Your task to perform on an android device: Go to eBay Image 0: 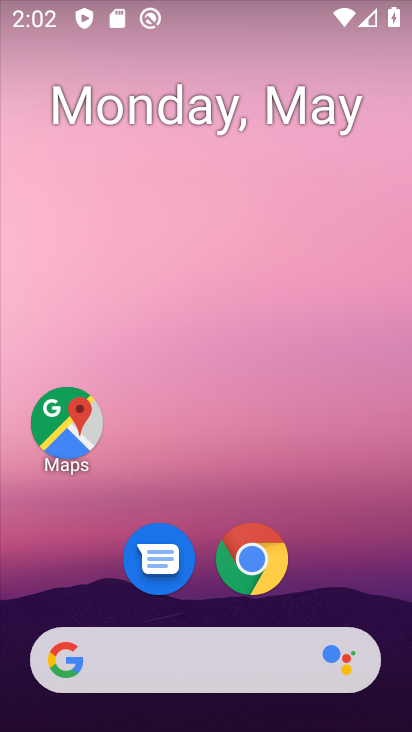
Step 0: drag from (265, 714) to (264, 169)
Your task to perform on an android device: Go to eBay Image 1: 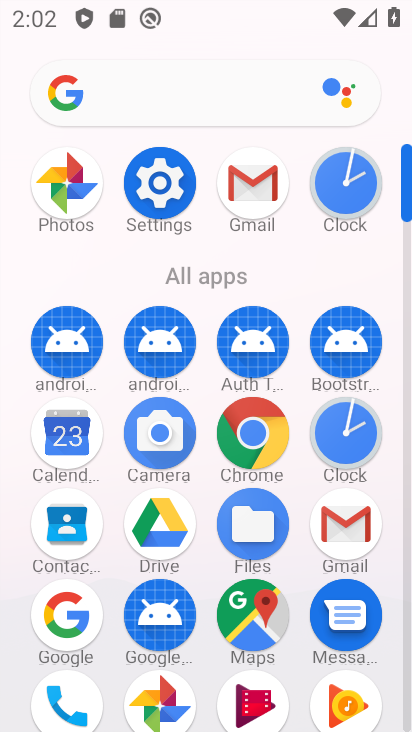
Step 1: click (276, 440)
Your task to perform on an android device: Go to eBay Image 2: 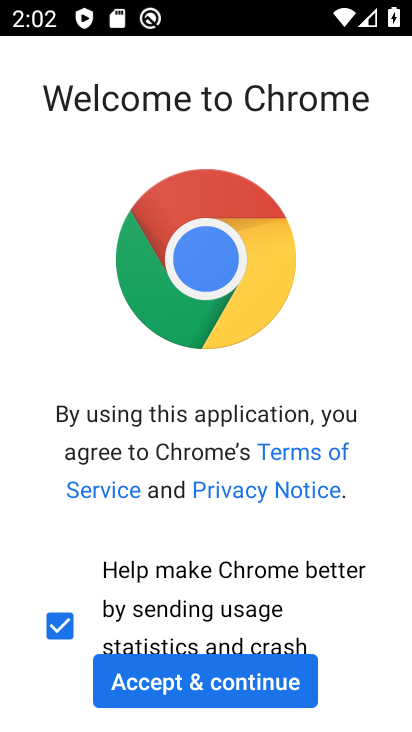
Step 2: click (204, 684)
Your task to perform on an android device: Go to eBay Image 3: 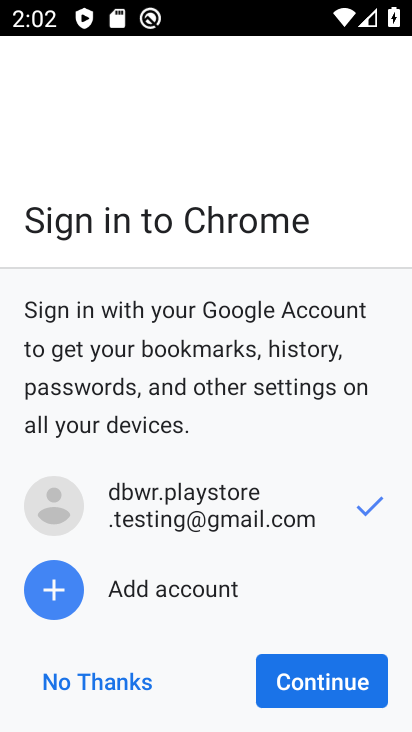
Step 3: click (327, 665)
Your task to perform on an android device: Go to eBay Image 4: 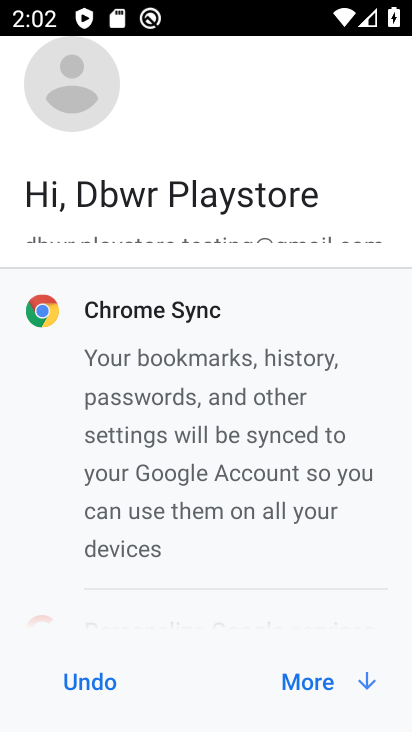
Step 4: click (357, 682)
Your task to perform on an android device: Go to eBay Image 5: 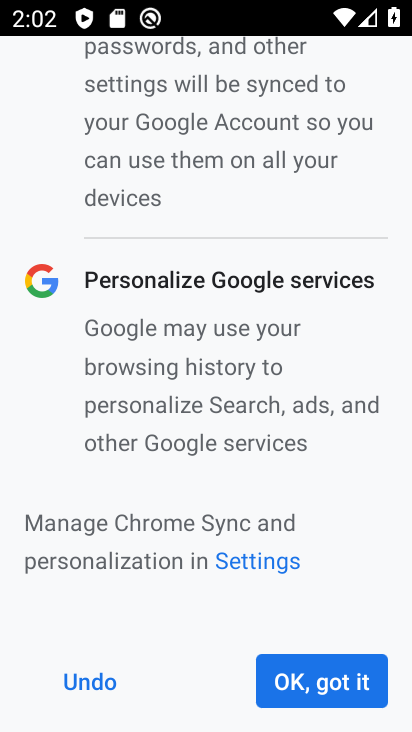
Step 5: click (307, 697)
Your task to perform on an android device: Go to eBay Image 6: 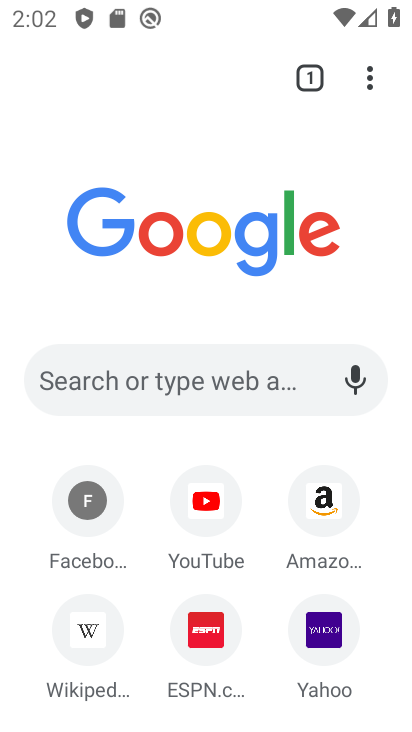
Step 6: click (169, 396)
Your task to perform on an android device: Go to eBay Image 7: 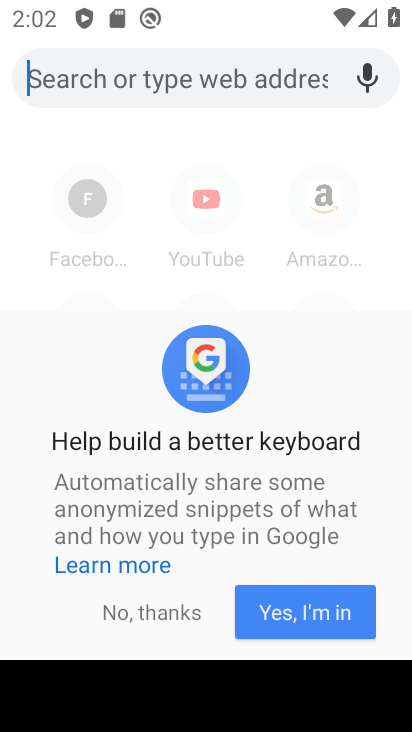
Step 7: click (112, 618)
Your task to perform on an android device: Go to eBay Image 8: 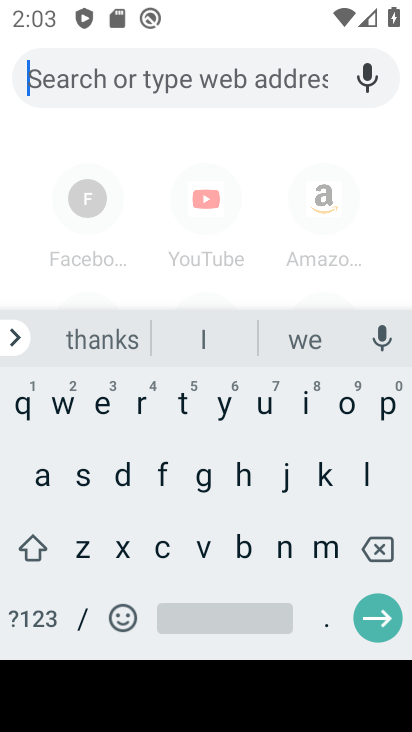
Step 8: click (89, 413)
Your task to perform on an android device: Go to eBay Image 9: 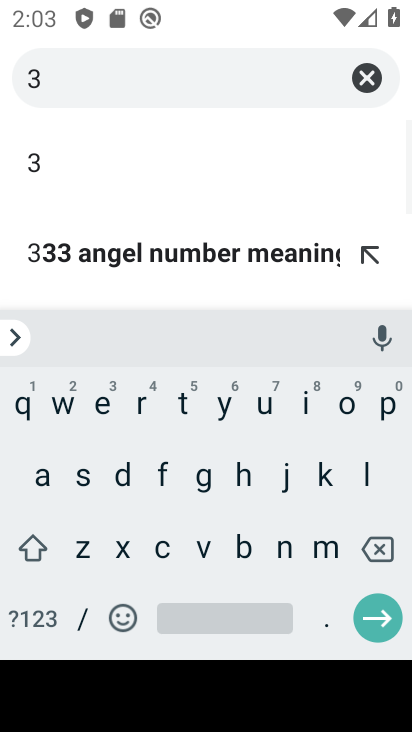
Step 9: click (382, 557)
Your task to perform on an android device: Go to eBay Image 10: 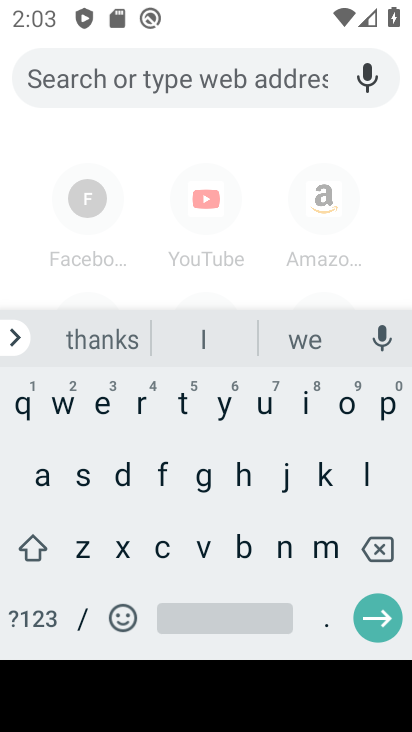
Step 10: click (91, 415)
Your task to perform on an android device: Go to eBay Image 11: 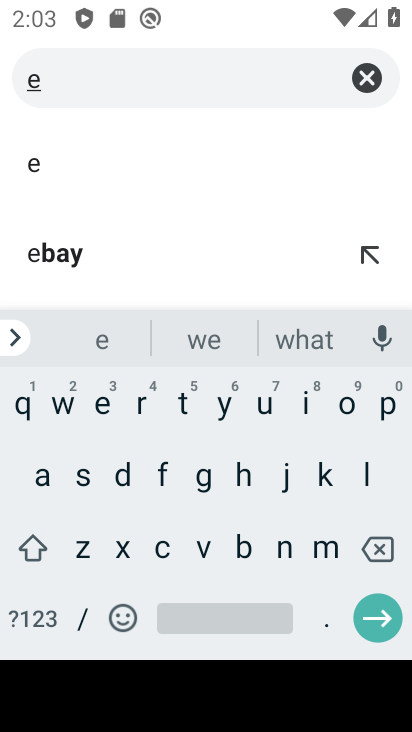
Step 11: click (62, 260)
Your task to perform on an android device: Go to eBay Image 12: 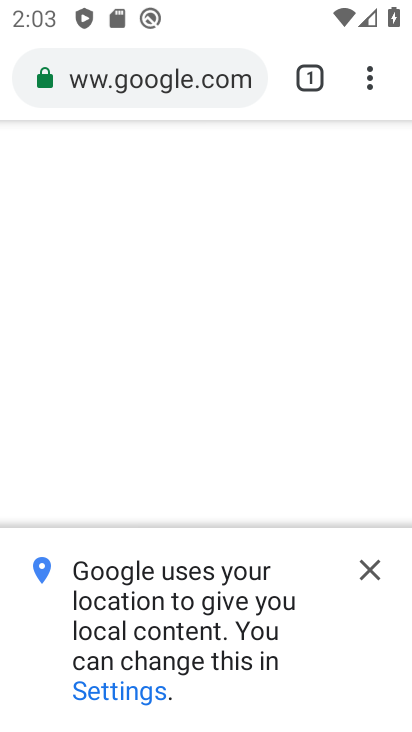
Step 12: click (371, 579)
Your task to perform on an android device: Go to eBay Image 13: 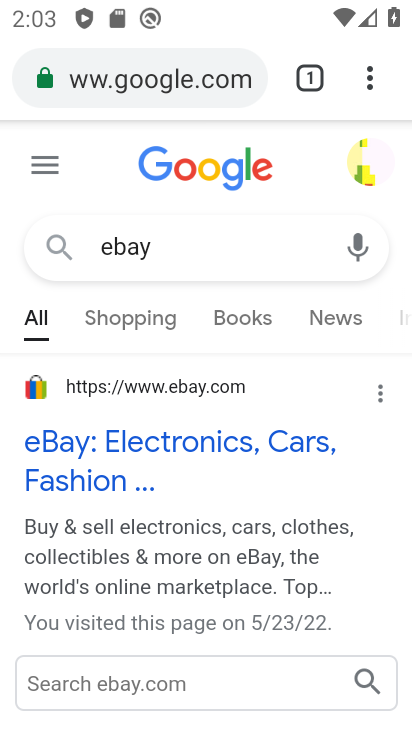
Step 13: click (109, 452)
Your task to perform on an android device: Go to eBay Image 14: 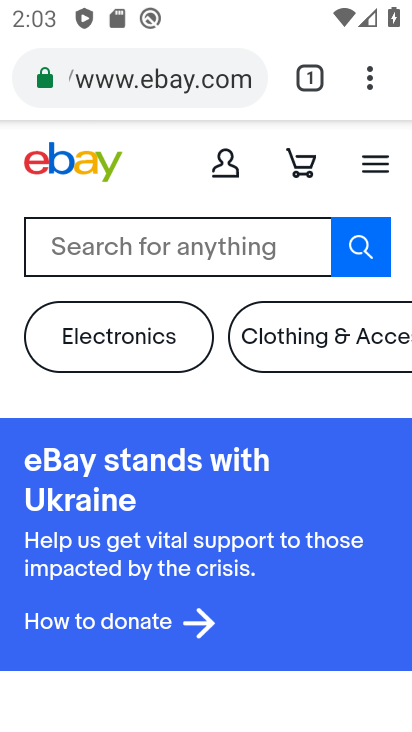
Step 14: task complete